Your task to perform on an android device: Open Youtube and go to the subscriptions tab Image 0: 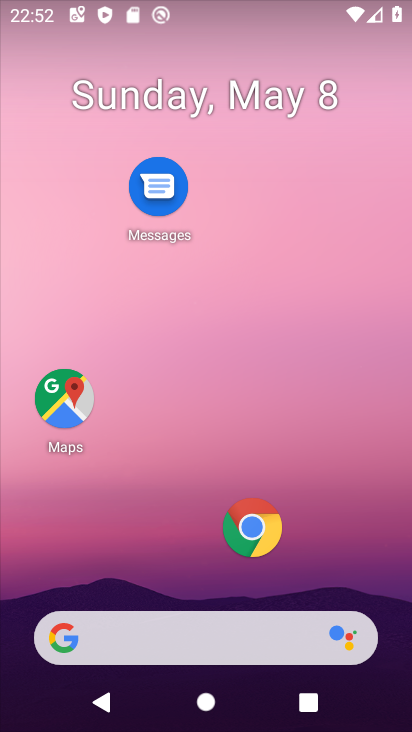
Step 0: drag from (174, 576) to (155, 63)
Your task to perform on an android device: Open Youtube and go to the subscriptions tab Image 1: 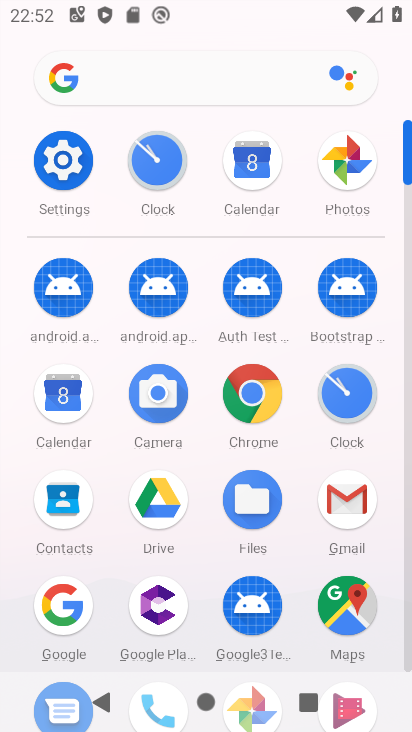
Step 1: drag from (202, 603) to (234, 170)
Your task to perform on an android device: Open Youtube and go to the subscriptions tab Image 2: 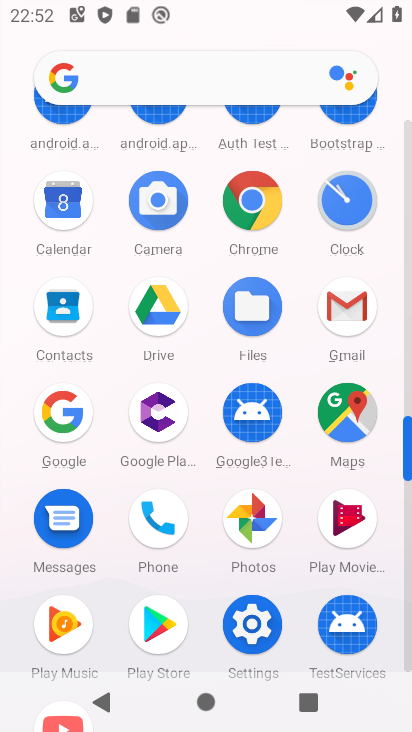
Step 2: drag from (112, 630) to (116, 363)
Your task to perform on an android device: Open Youtube and go to the subscriptions tab Image 3: 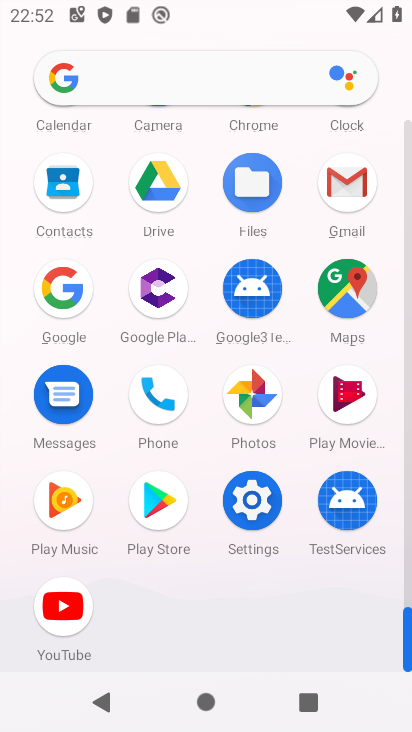
Step 3: click (69, 584)
Your task to perform on an android device: Open Youtube and go to the subscriptions tab Image 4: 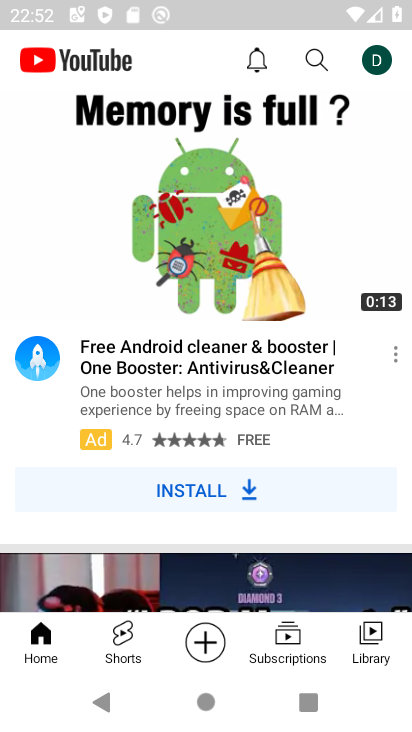
Step 4: click (284, 634)
Your task to perform on an android device: Open Youtube and go to the subscriptions tab Image 5: 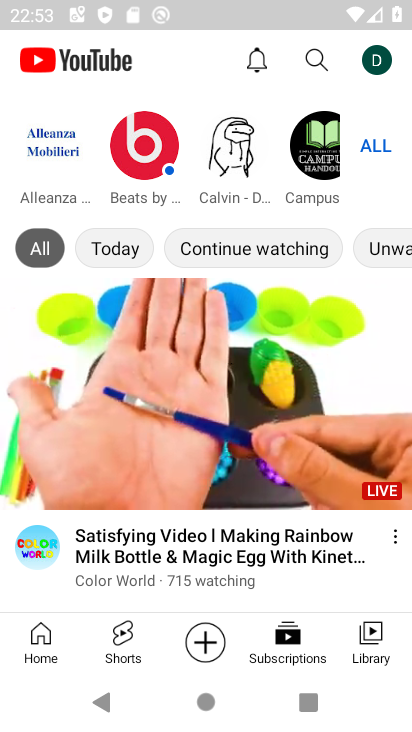
Step 5: task complete